Your task to perform on an android device: turn notification dots off Image 0: 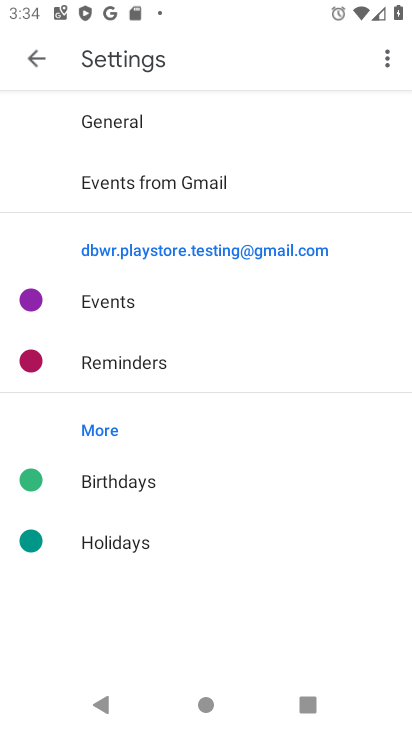
Step 0: press home button
Your task to perform on an android device: turn notification dots off Image 1: 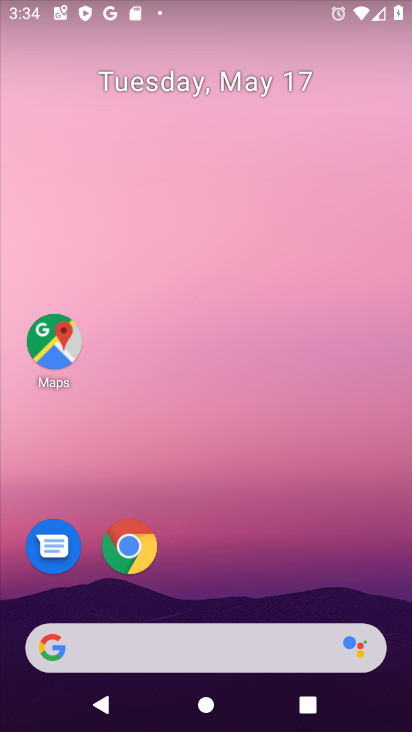
Step 1: click (382, 225)
Your task to perform on an android device: turn notification dots off Image 2: 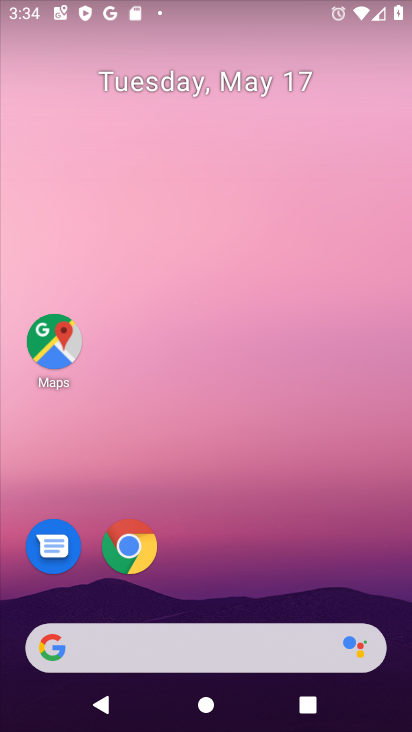
Step 2: drag from (402, 574) to (390, 193)
Your task to perform on an android device: turn notification dots off Image 3: 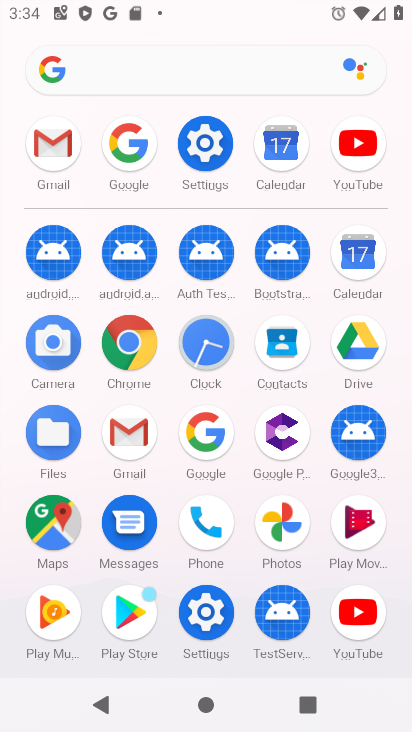
Step 3: click (205, 151)
Your task to perform on an android device: turn notification dots off Image 4: 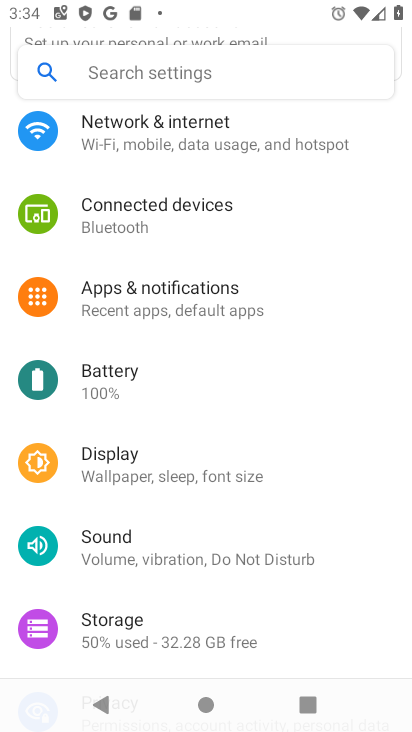
Step 4: click (164, 296)
Your task to perform on an android device: turn notification dots off Image 5: 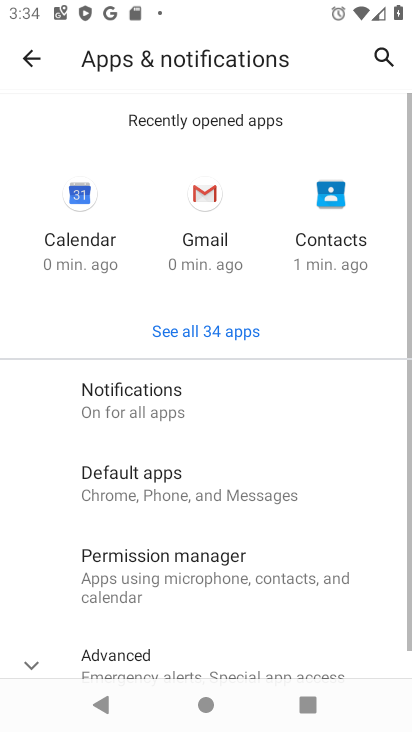
Step 5: drag from (356, 640) to (354, 393)
Your task to perform on an android device: turn notification dots off Image 6: 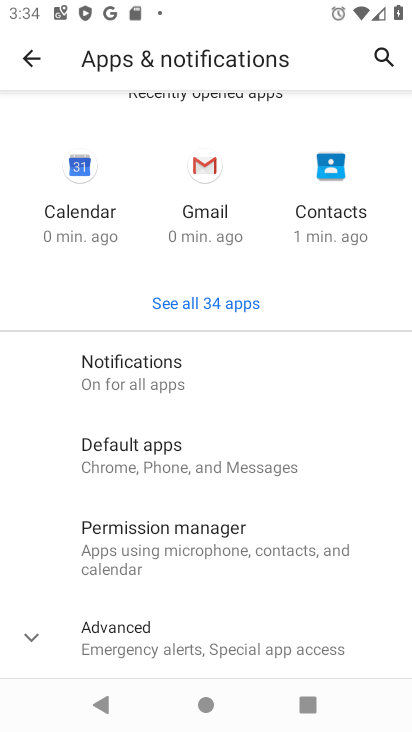
Step 6: click (107, 363)
Your task to perform on an android device: turn notification dots off Image 7: 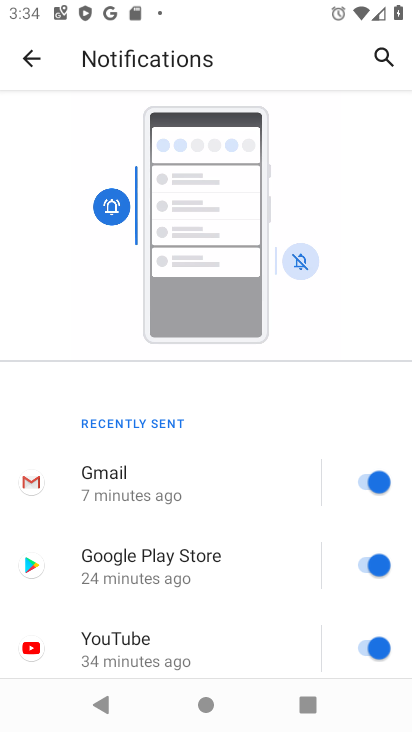
Step 7: drag from (281, 530) to (273, 370)
Your task to perform on an android device: turn notification dots off Image 8: 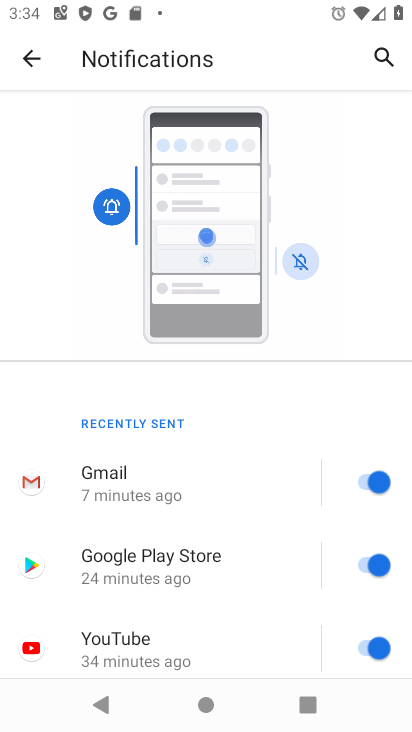
Step 8: drag from (249, 626) to (222, 279)
Your task to perform on an android device: turn notification dots off Image 9: 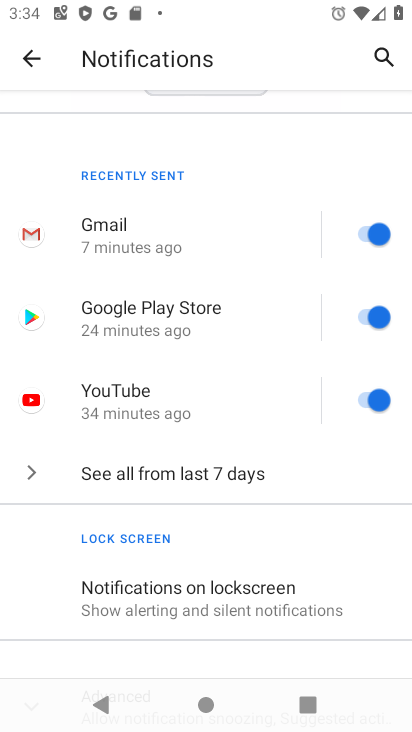
Step 9: drag from (281, 529) to (275, 262)
Your task to perform on an android device: turn notification dots off Image 10: 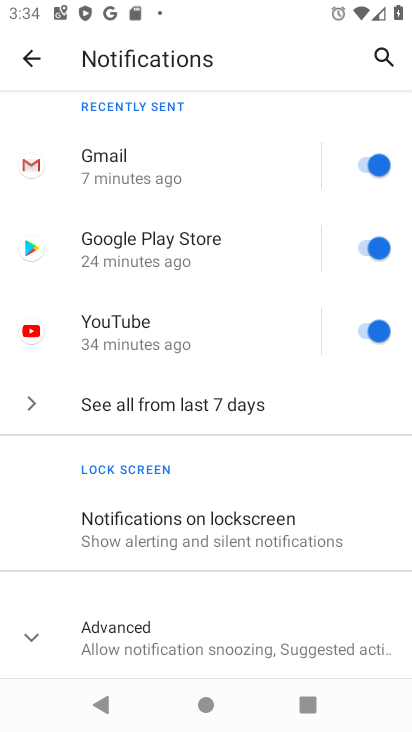
Step 10: drag from (231, 633) to (266, 368)
Your task to perform on an android device: turn notification dots off Image 11: 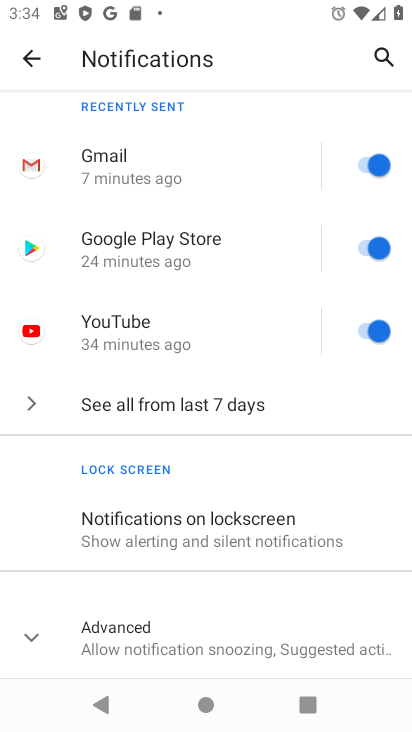
Step 11: click (22, 636)
Your task to perform on an android device: turn notification dots off Image 12: 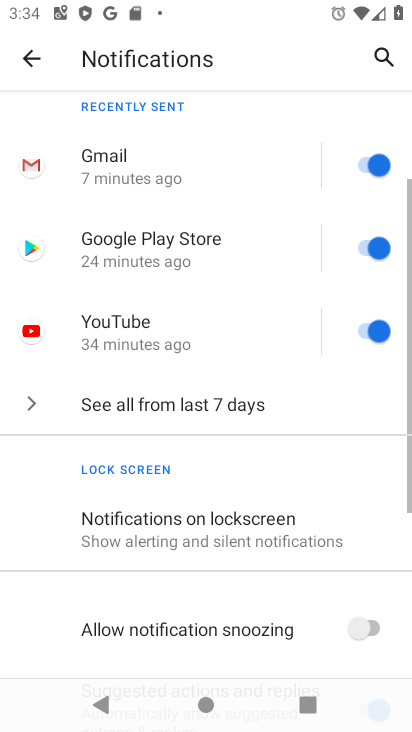
Step 12: task complete